Your task to perform on an android device: star an email in the gmail app Image 0: 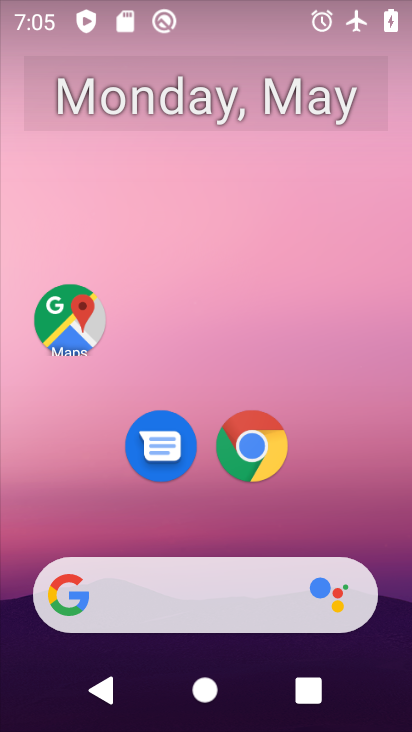
Step 0: drag from (334, 483) to (216, 96)
Your task to perform on an android device: star an email in the gmail app Image 1: 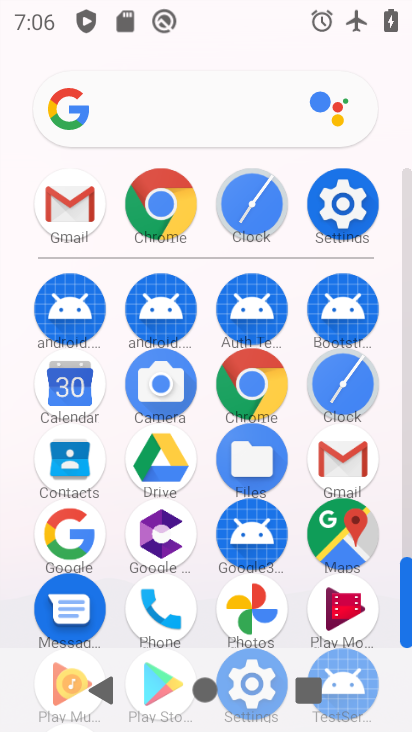
Step 1: click (83, 191)
Your task to perform on an android device: star an email in the gmail app Image 2: 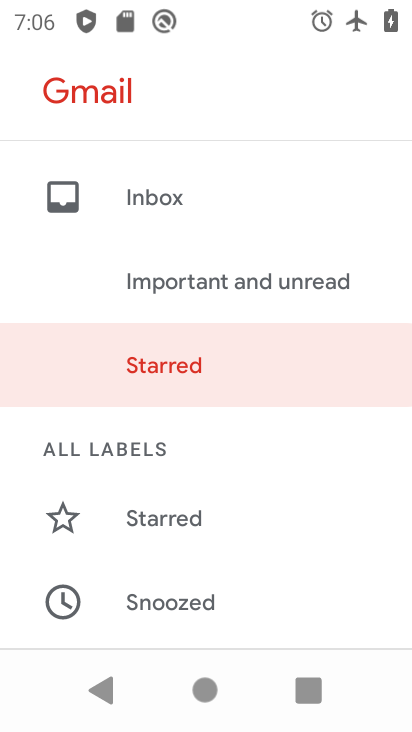
Step 2: click (151, 188)
Your task to perform on an android device: star an email in the gmail app Image 3: 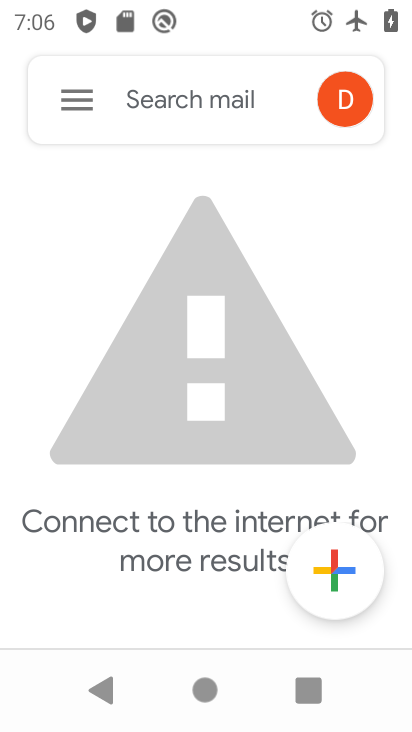
Step 3: task complete